Your task to perform on an android device: open sync settings in chrome Image 0: 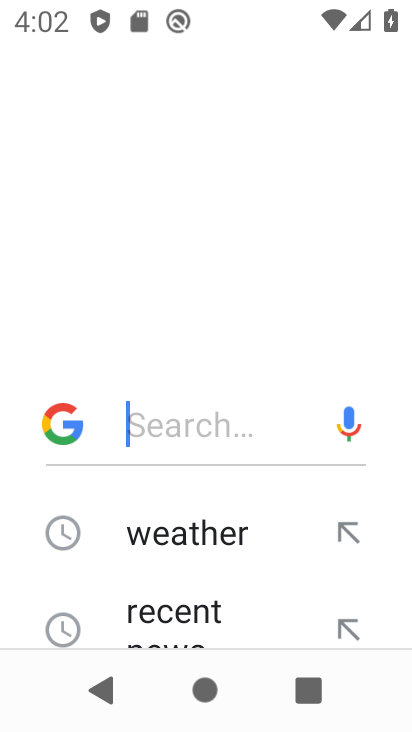
Step 0: press home button
Your task to perform on an android device: open sync settings in chrome Image 1: 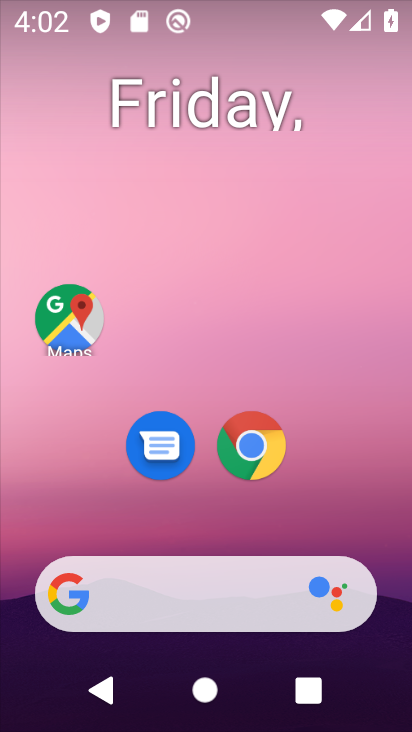
Step 1: click (245, 459)
Your task to perform on an android device: open sync settings in chrome Image 2: 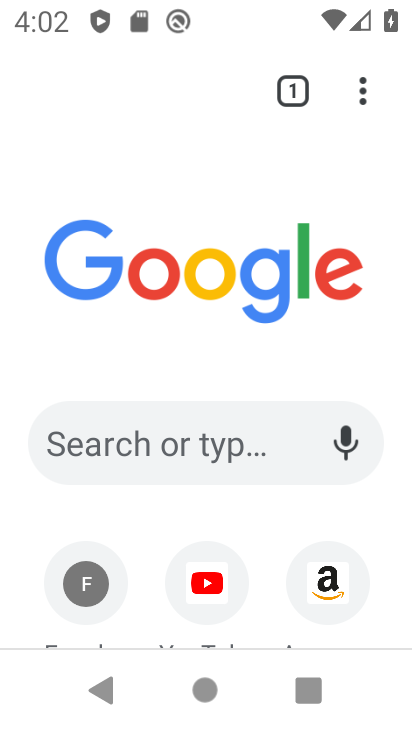
Step 2: drag from (371, 93) to (197, 478)
Your task to perform on an android device: open sync settings in chrome Image 3: 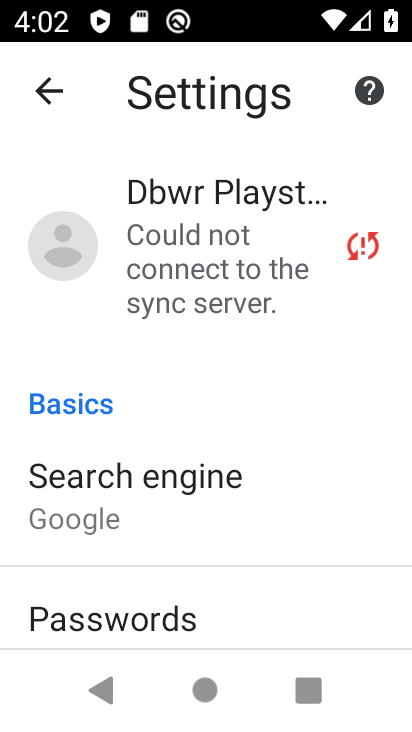
Step 3: click (200, 240)
Your task to perform on an android device: open sync settings in chrome Image 4: 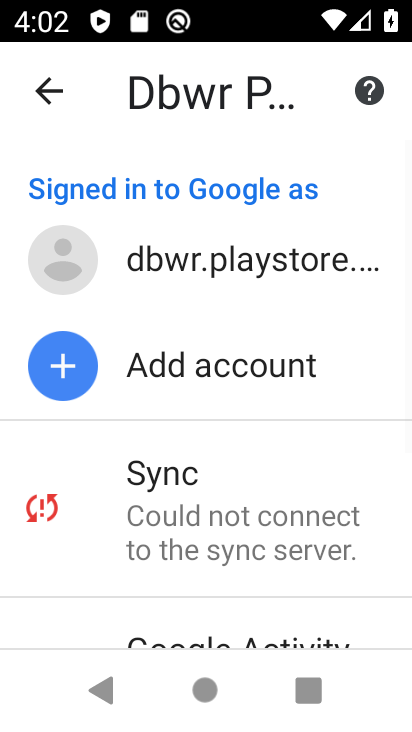
Step 4: click (192, 516)
Your task to perform on an android device: open sync settings in chrome Image 5: 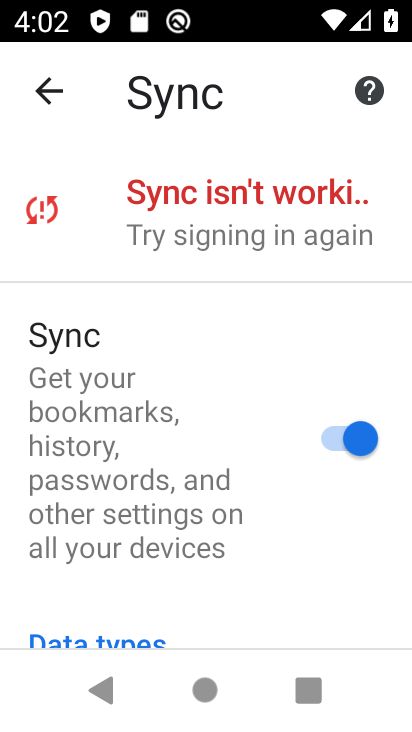
Step 5: task complete